Your task to perform on an android device: set an alarm Image 0: 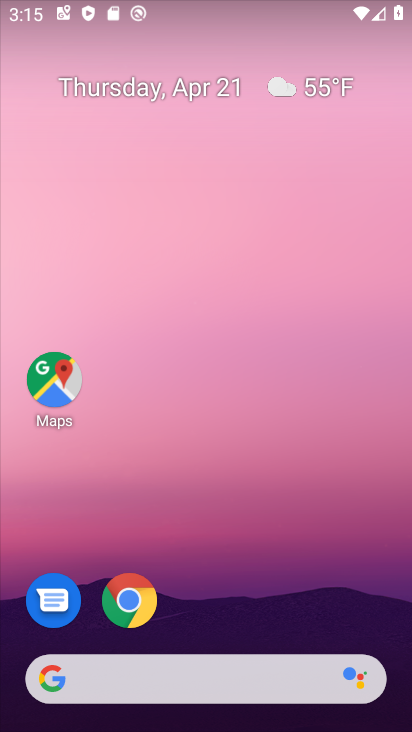
Step 0: drag from (199, 685) to (280, 212)
Your task to perform on an android device: set an alarm Image 1: 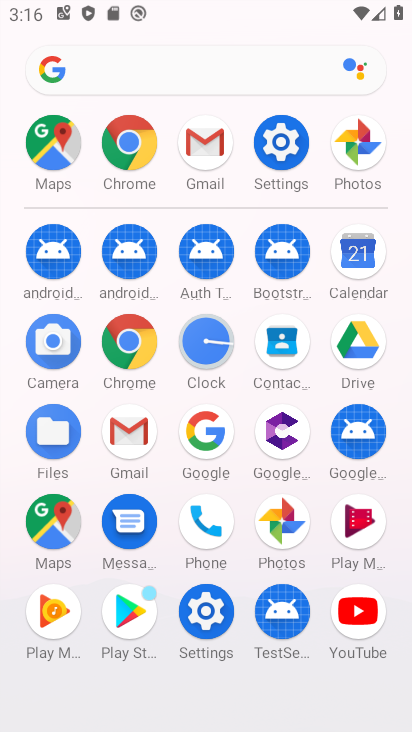
Step 1: click (204, 352)
Your task to perform on an android device: set an alarm Image 2: 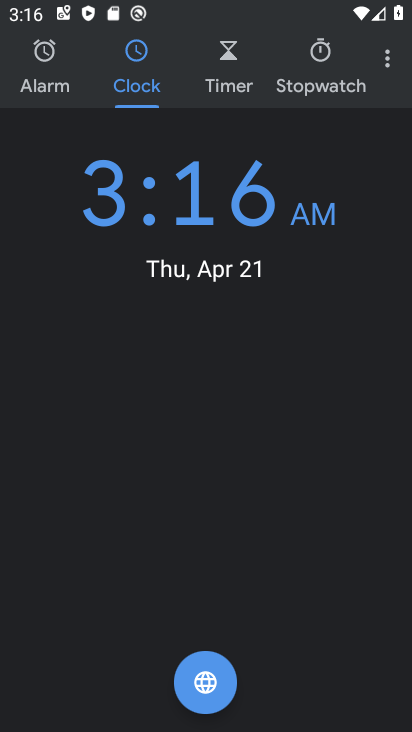
Step 2: click (55, 81)
Your task to perform on an android device: set an alarm Image 3: 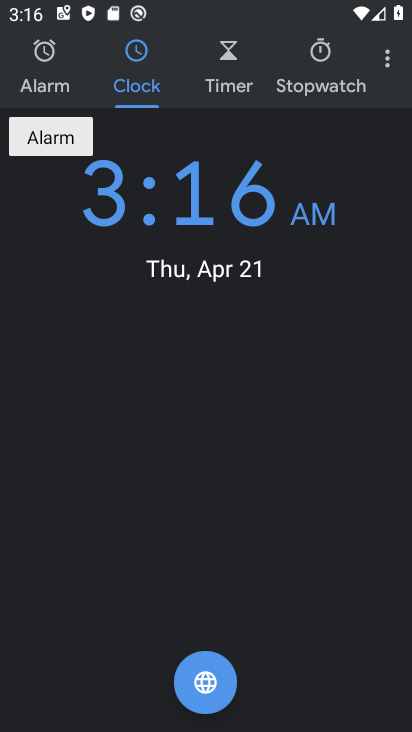
Step 3: click (49, 88)
Your task to perform on an android device: set an alarm Image 4: 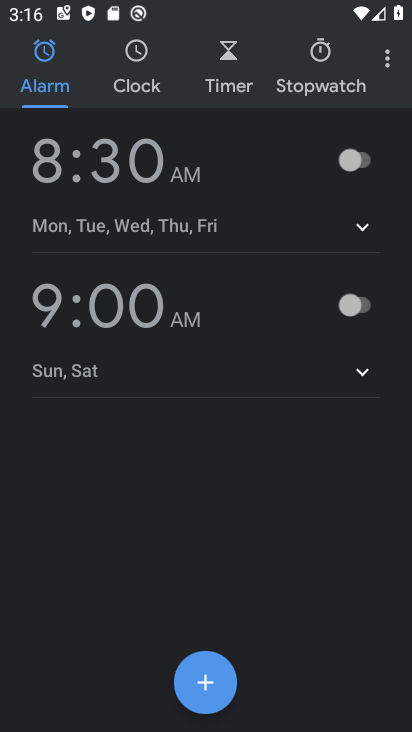
Step 4: click (277, 172)
Your task to perform on an android device: set an alarm Image 5: 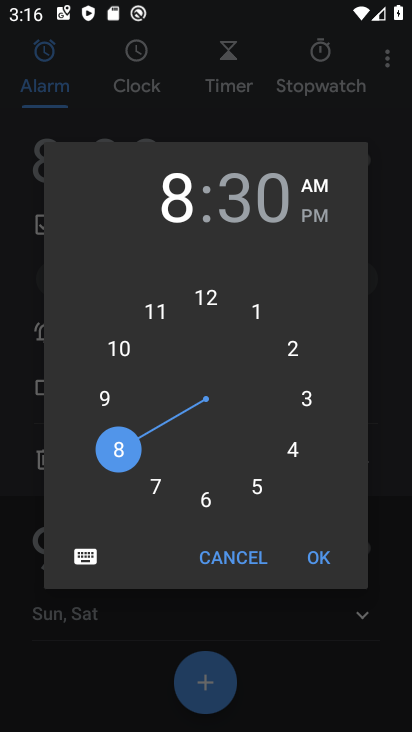
Step 5: click (118, 356)
Your task to perform on an android device: set an alarm Image 6: 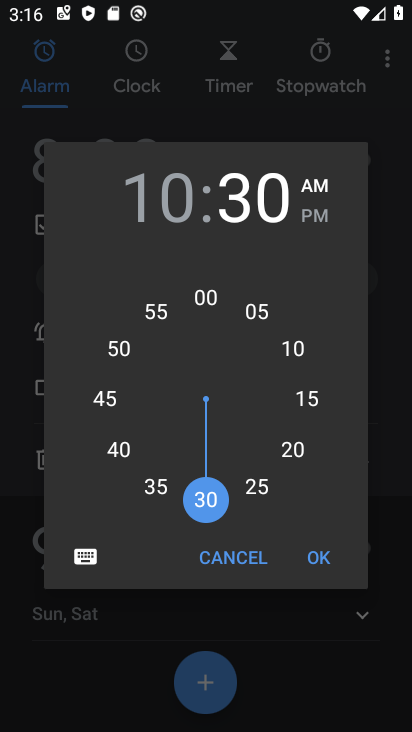
Step 6: click (291, 344)
Your task to perform on an android device: set an alarm Image 7: 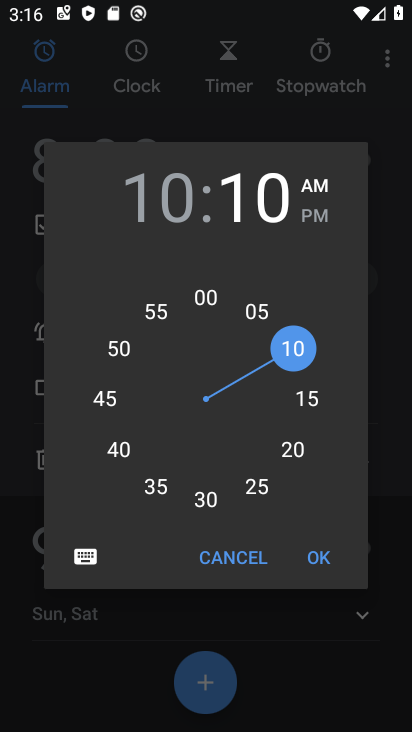
Step 7: click (323, 214)
Your task to perform on an android device: set an alarm Image 8: 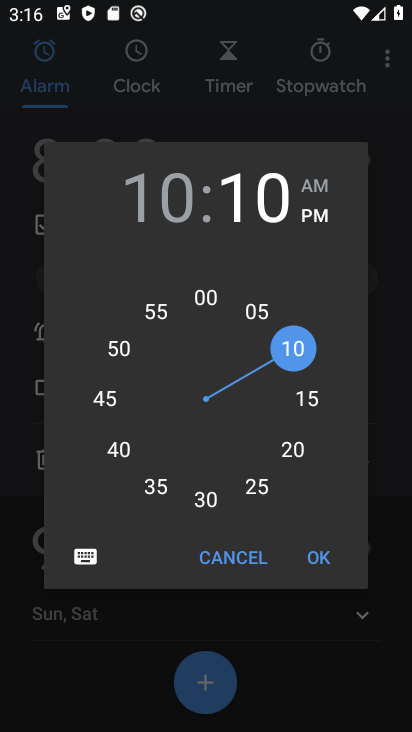
Step 8: click (322, 554)
Your task to perform on an android device: set an alarm Image 9: 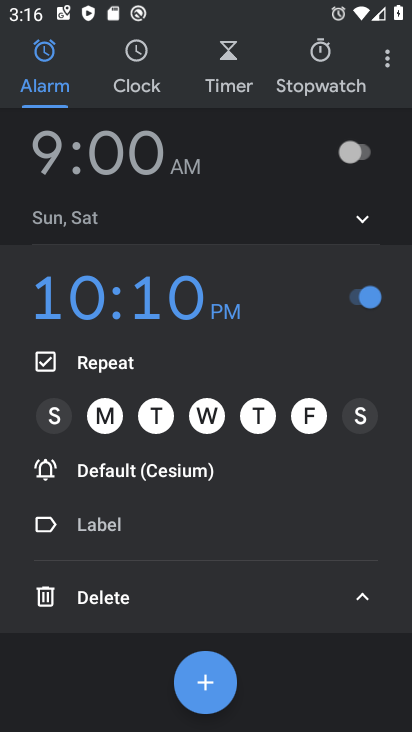
Step 9: task complete